Your task to perform on an android device: set an alarm Image 0: 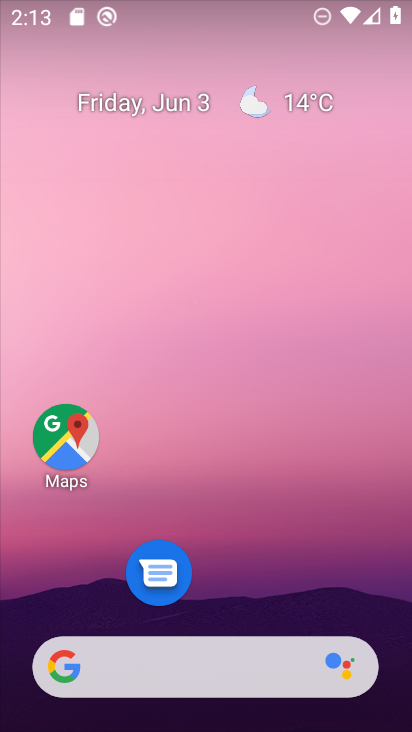
Step 0: drag from (263, 563) to (274, 92)
Your task to perform on an android device: set an alarm Image 1: 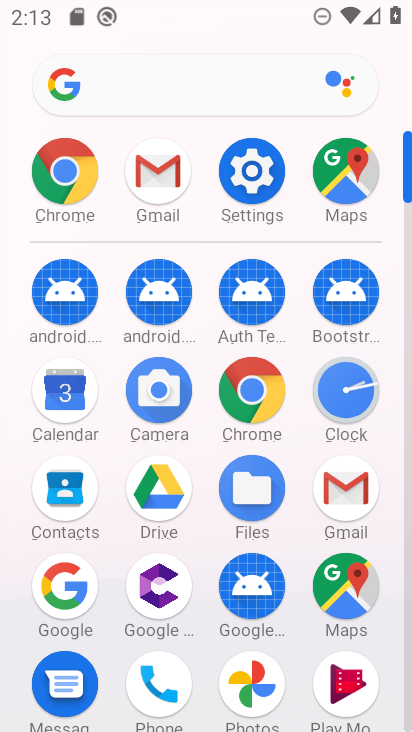
Step 1: click (336, 386)
Your task to perform on an android device: set an alarm Image 2: 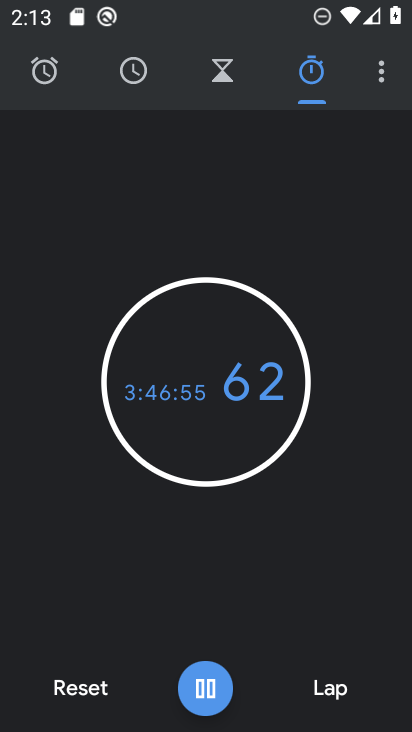
Step 2: click (36, 58)
Your task to perform on an android device: set an alarm Image 3: 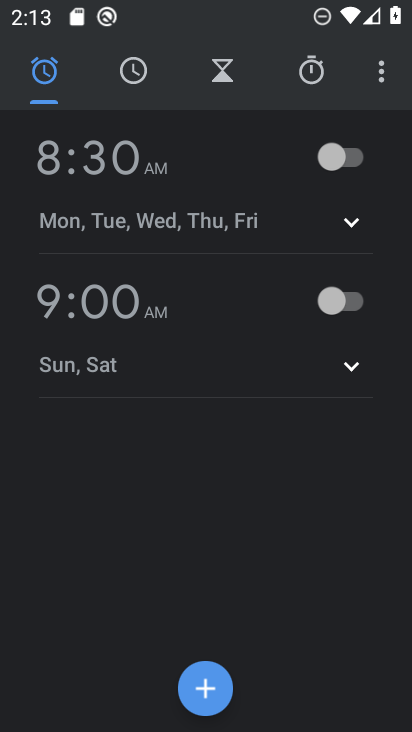
Step 3: click (353, 160)
Your task to perform on an android device: set an alarm Image 4: 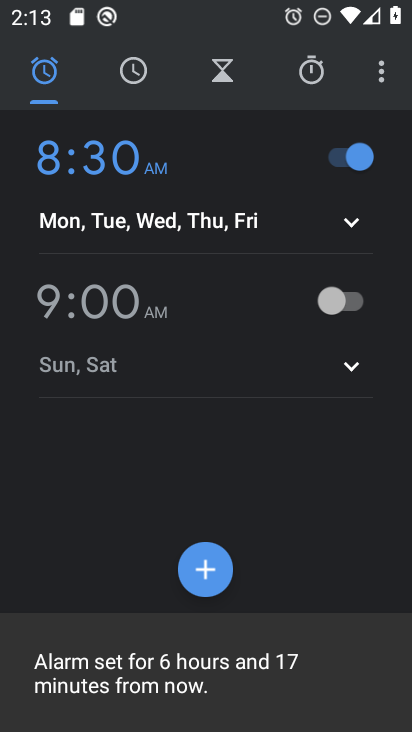
Step 4: task complete